Your task to perform on an android device: toggle translation in the chrome app Image 0: 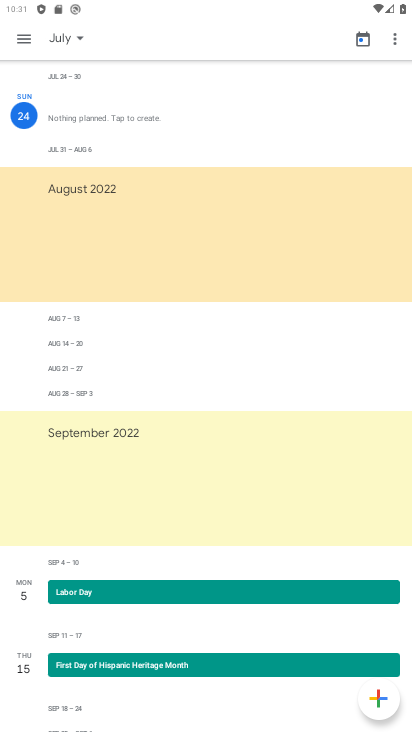
Step 0: press home button
Your task to perform on an android device: toggle translation in the chrome app Image 1: 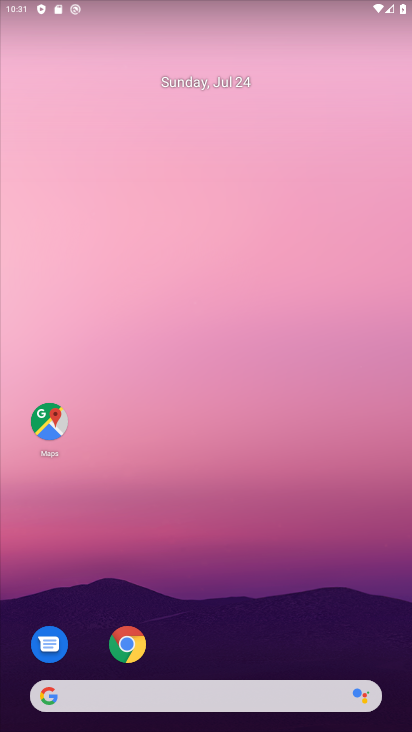
Step 1: click (129, 649)
Your task to perform on an android device: toggle translation in the chrome app Image 2: 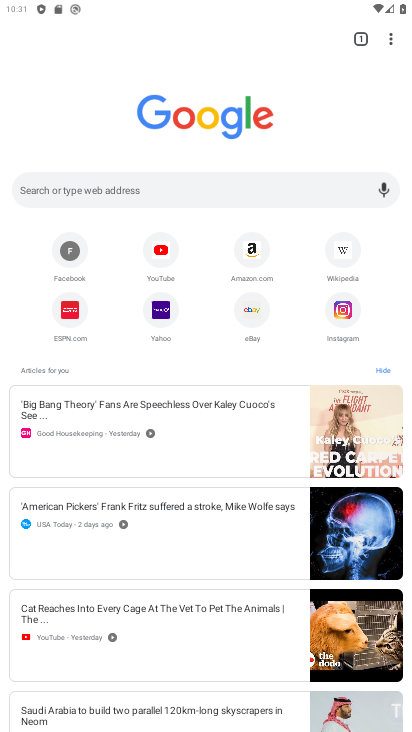
Step 2: drag from (389, 36) to (260, 331)
Your task to perform on an android device: toggle translation in the chrome app Image 3: 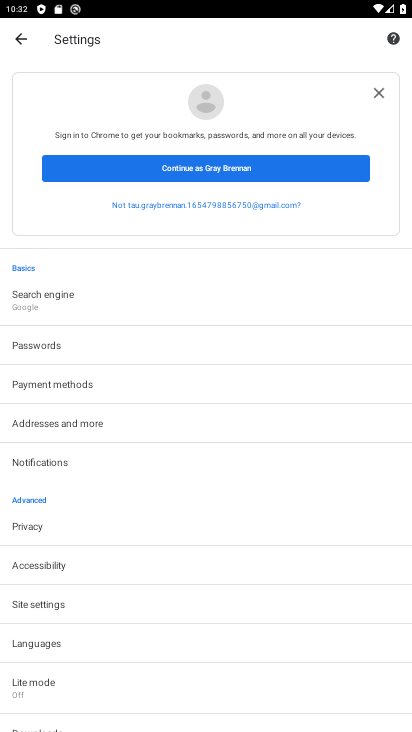
Step 3: click (40, 638)
Your task to perform on an android device: toggle translation in the chrome app Image 4: 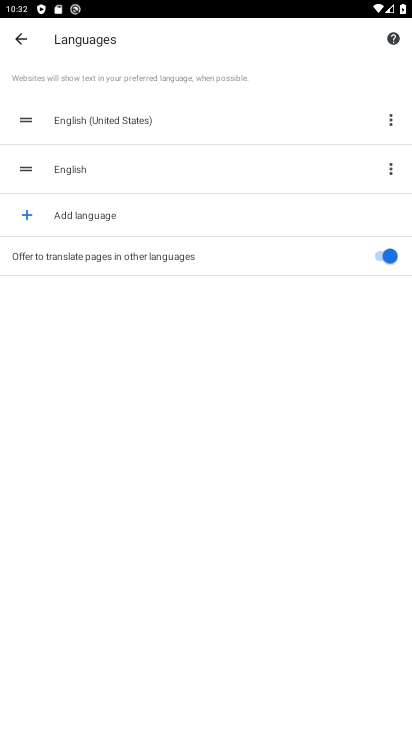
Step 4: click (376, 252)
Your task to perform on an android device: toggle translation in the chrome app Image 5: 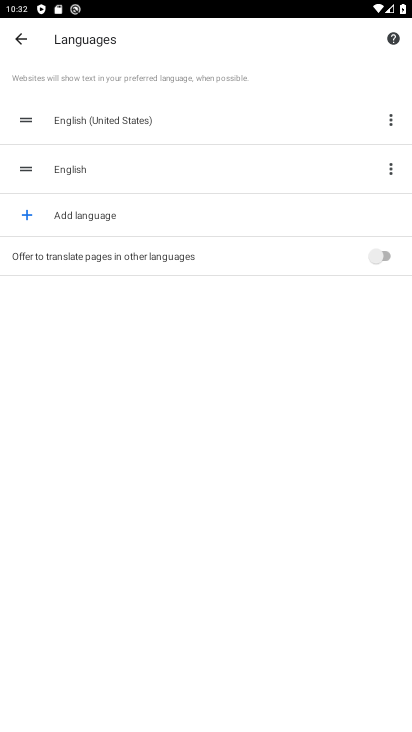
Step 5: task complete